Your task to perform on an android device: What's on my calendar tomorrow? Image 0: 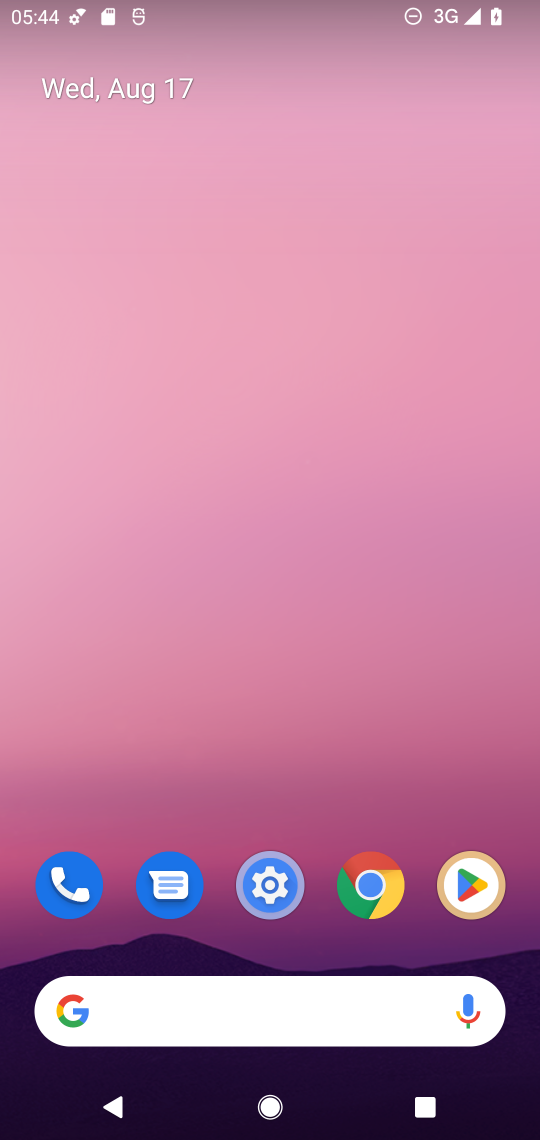
Step 0: click (176, 90)
Your task to perform on an android device: What's on my calendar tomorrow? Image 1: 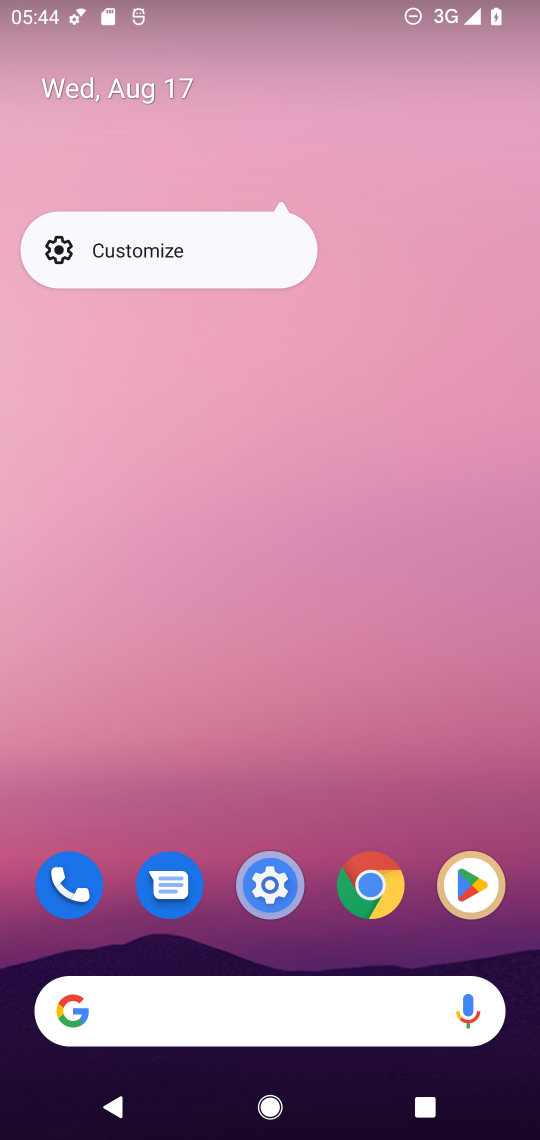
Step 1: click (157, 95)
Your task to perform on an android device: What's on my calendar tomorrow? Image 2: 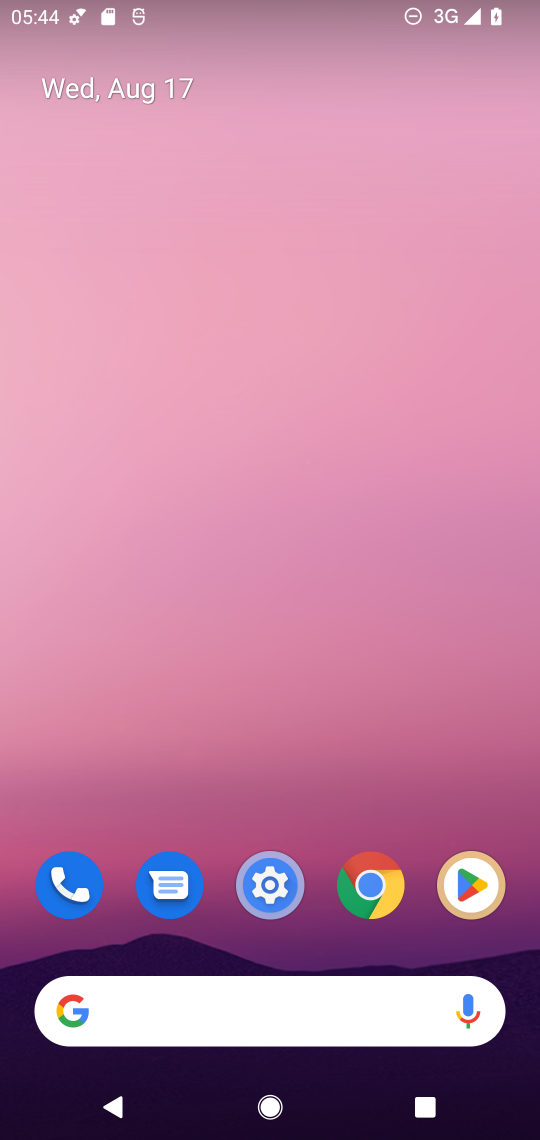
Step 2: click (111, 86)
Your task to perform on an android device: What's on my calendar tomorrow? Image 3: 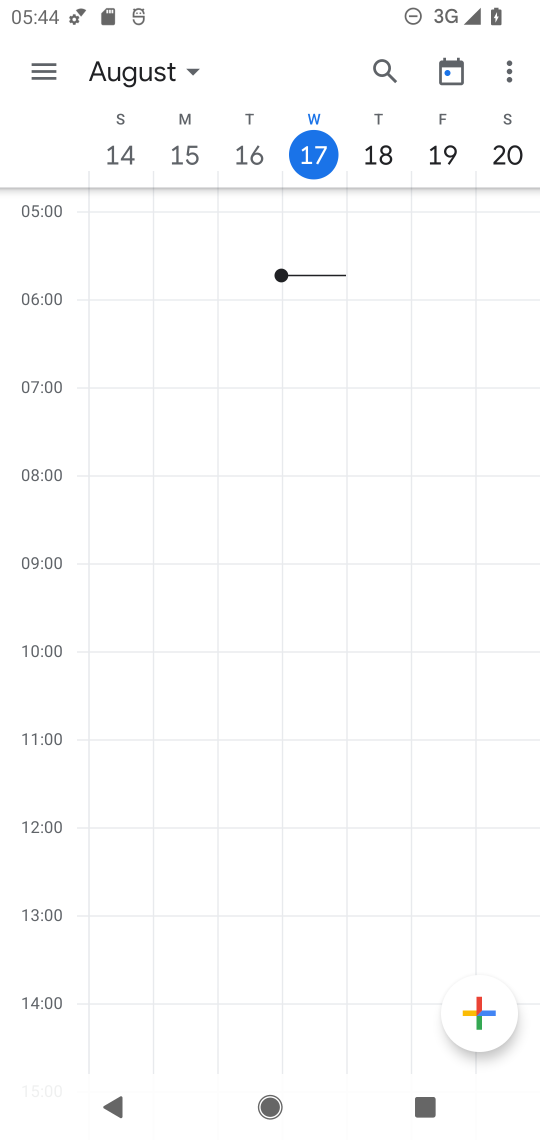
Step 3: click (369, 158)
Your task to perform on an android device: What's on my calendar tomorrow? Image 4: 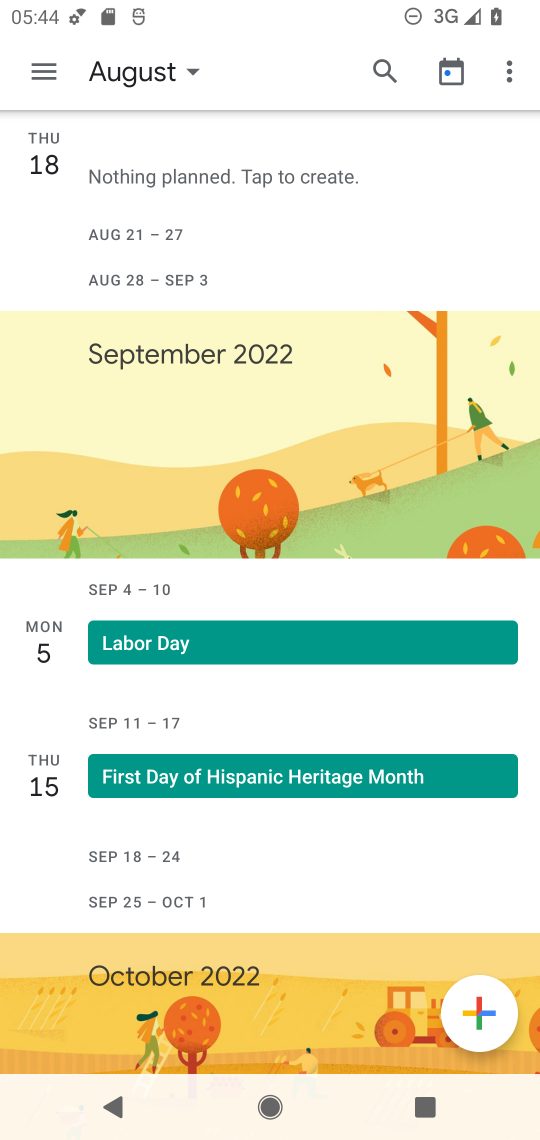
Step 4: task complete